Your task to perform on an android device: open wifi settings Image 0: 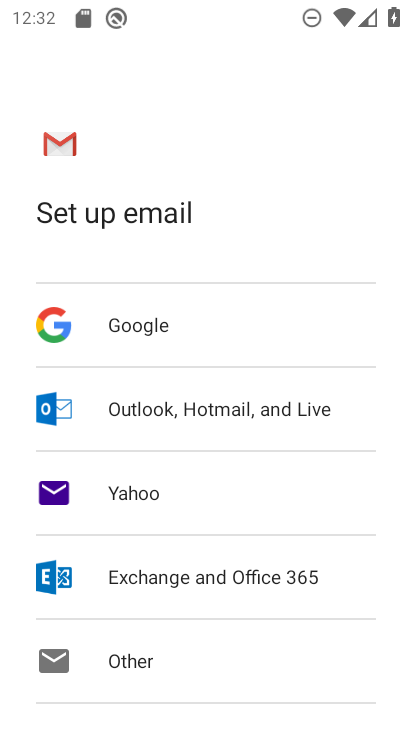
Step 0: press home button
Your task to perform on an android device: open wifi settings Image 1: 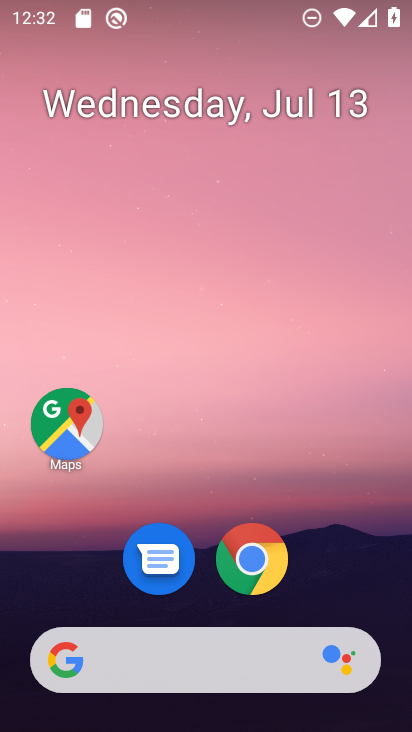
Step 1: drag from (236, 651) to (278, 0)
Your task to perform on an android device: open wifi settings Image 2: 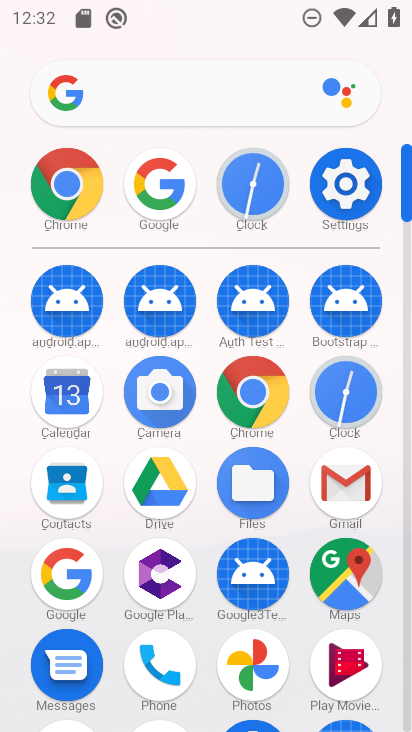
Step 2: click (347, 185)
Your task to perform on an android device: open wifi settings Image 3: 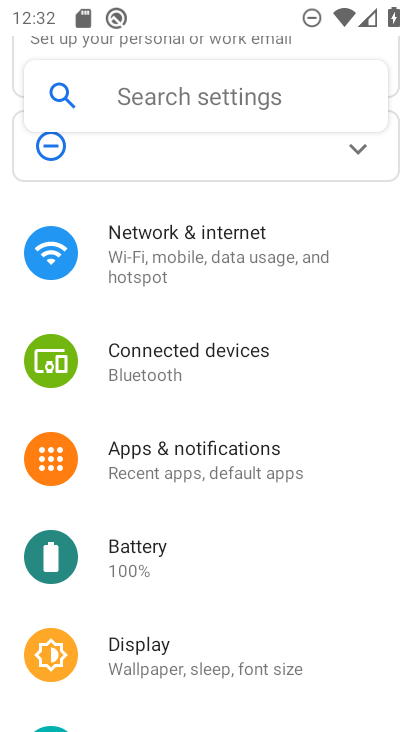
Step 3: drag from (195, 537) to (170, 309)
Your task to perform on an android device: open wifi settings Image 4: 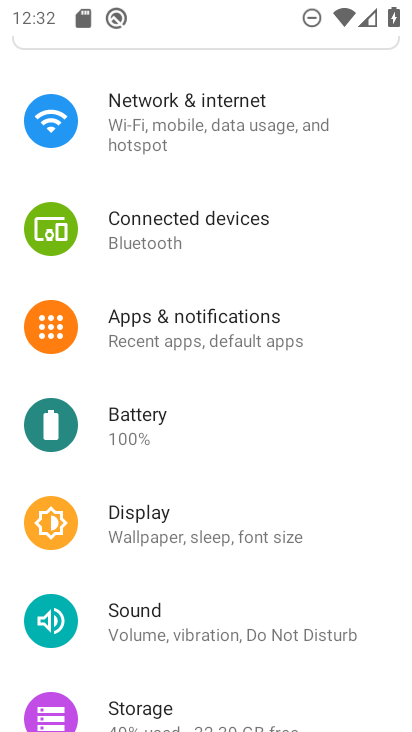
Step 4: click (218, 146)
Your task to perform on an android device: open wifi settings Image 5: 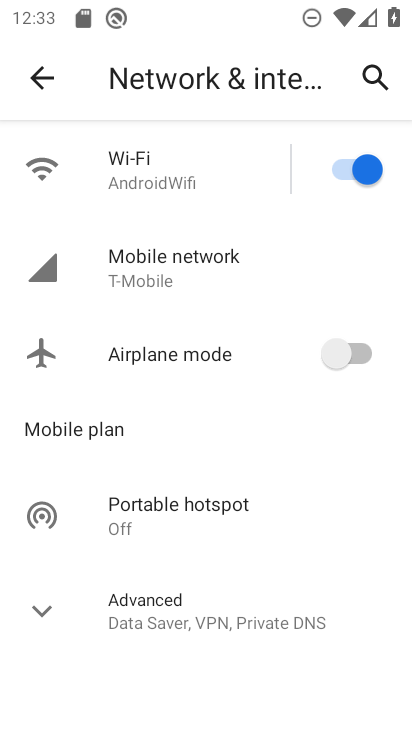
Step 5: click (189, 186)
Your task to perform on an android device: open wifi settings Image 6: 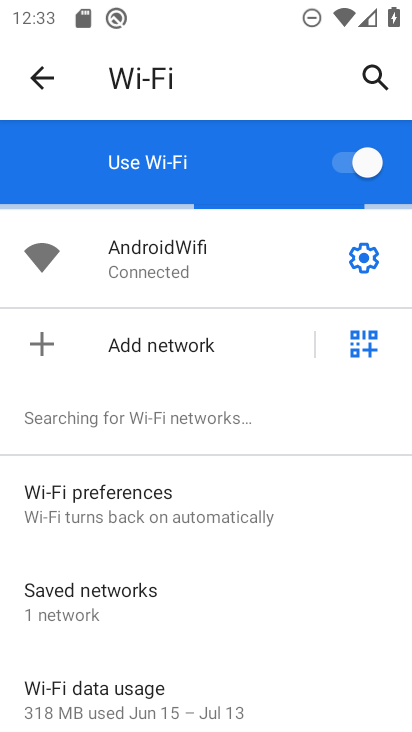
Step 6: task complete